Your task to perform on an android device: Open sound settings Image 0: 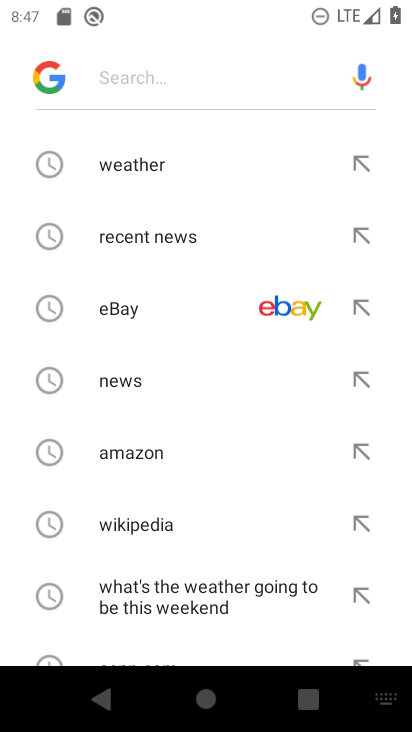
Step 0: press home button
Your task to perform on an android device: Open sound settings Image 1: 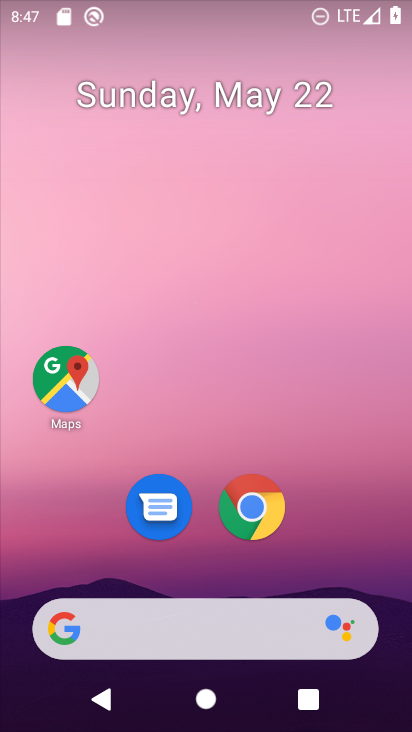
Step 1: drag from (142, 543) to (227, 4)
Your task to perform on an android device: Open sound settings Image 2: 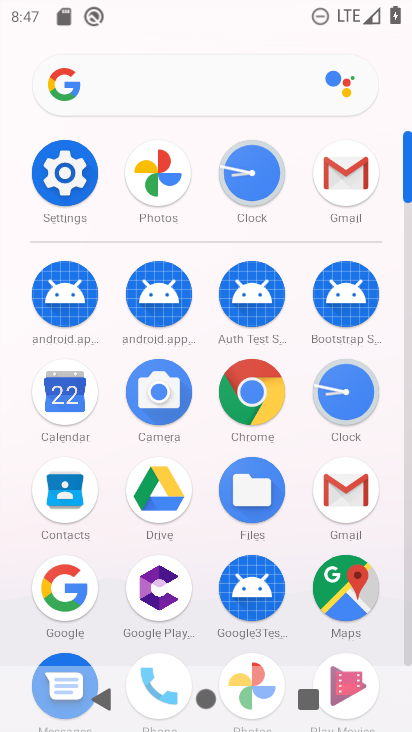
Step 2: click (56, 198)
Your task to perform on an android device: Open sound settings Image 3: 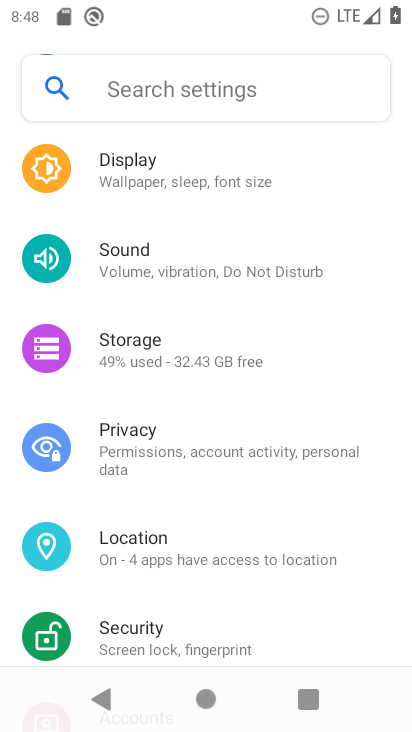
Step 3: click (250, 250)
Your task to perform on an android device: Open sound settings Image 4: 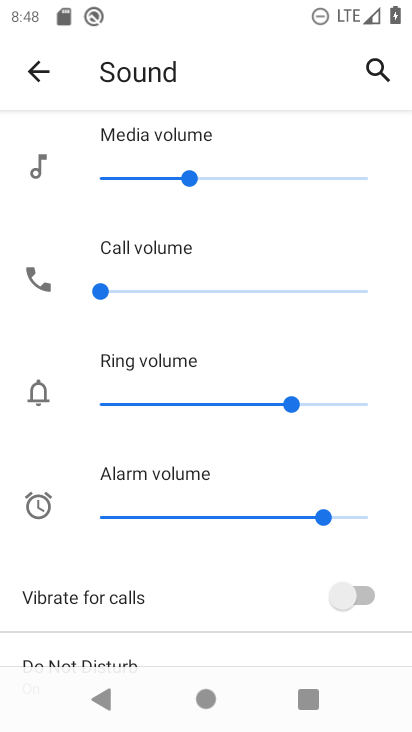
Step 4: task complete